Your task to perform on an android device: Open Google Chrome and open the bookmarks view Image 0: 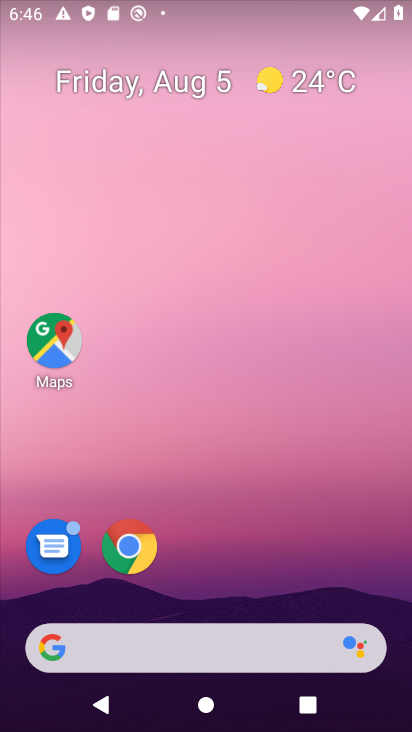
Step 0: drag from (162, 600) to (201, 126)
Your task to perform on an android device: Open Google Chrome and open the bookmarks view Image 1: 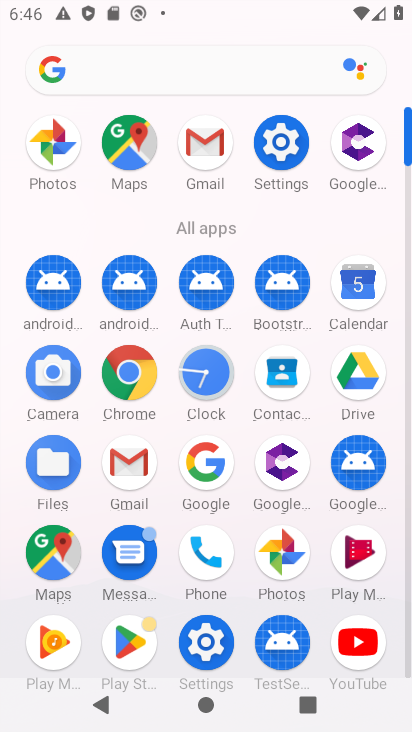
Step 1: click (123, 371)
Your task to perform on an android device: Open Google Chrome and open the bookmarks view Image 2: 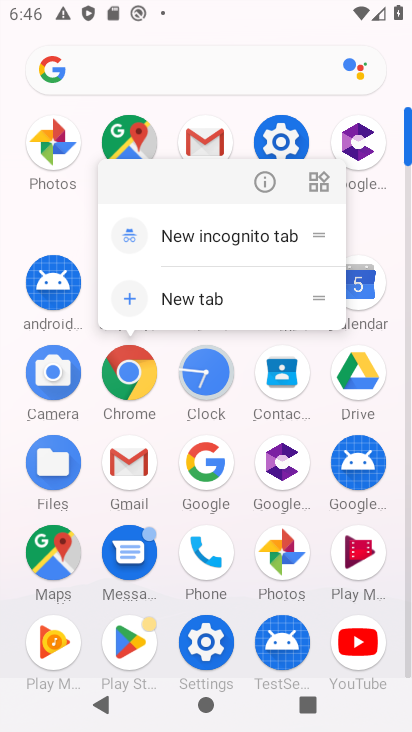
Step 2: click (256, 179)
Your task to perform on an android device: Open Google Chrome and open the bookmarks view Image 3: 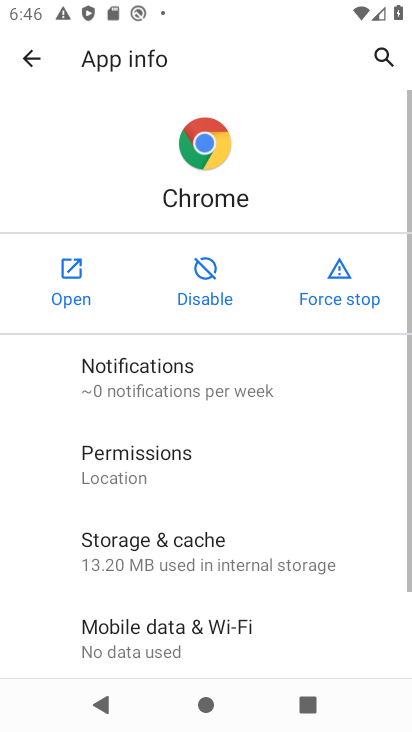
Step 3: click (68, 268)
Your task to perform on an android device: Open Google Chrome and open the bookmarks view Image 4: 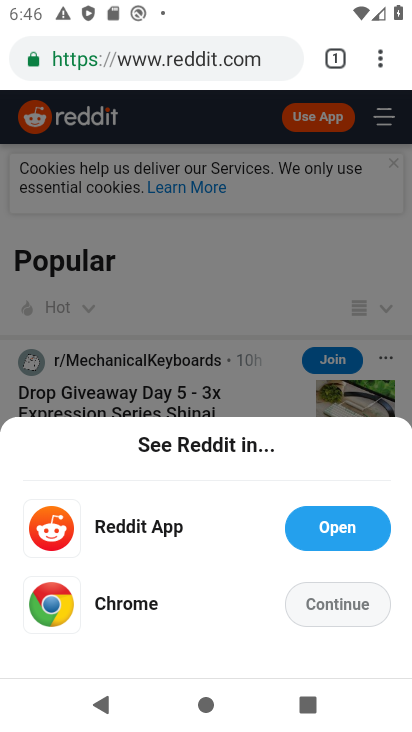
Step 4: task complete